Your task to perform on an android device: turn on sleep mode Image 0: 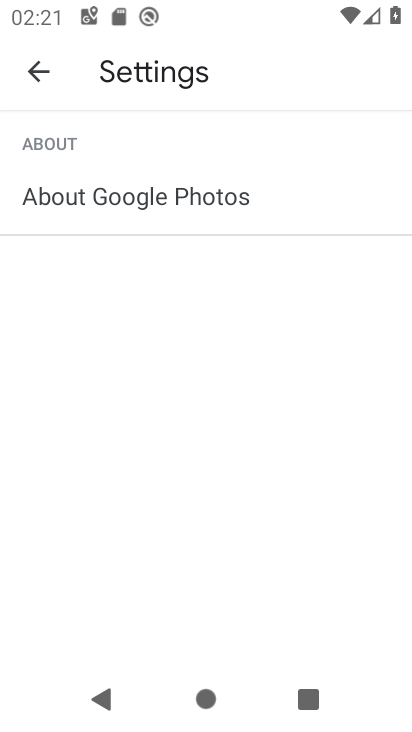
Step 0: press home button
Your task to perform on an android device: turn on sleep mode Image 1: 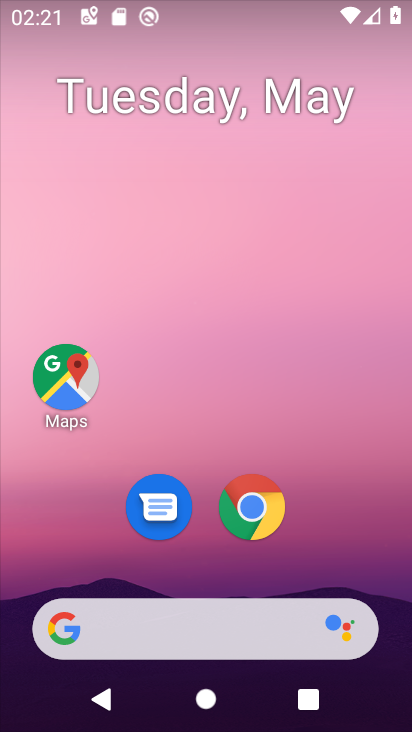
Step 1: drag from (197, 580) to (206, 239)
Your task to perform on an android device: turn on sleep mode Image 2: 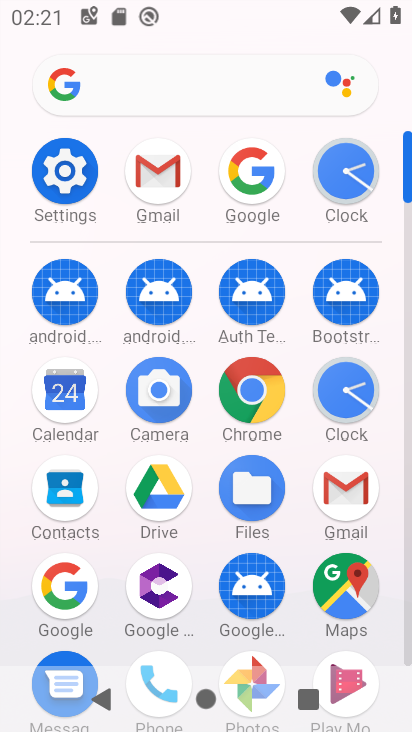
Step 2: click (52, 158)
Your task to perform on an android device: turn on sleep mode Image 3: 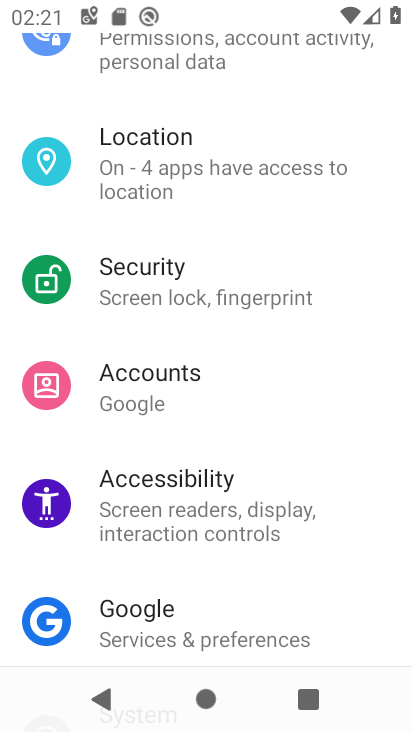
Step 3: drag from (221, 198) to (231, 534)
Your task to perform on an android device: turn on sleep mode Image 4: 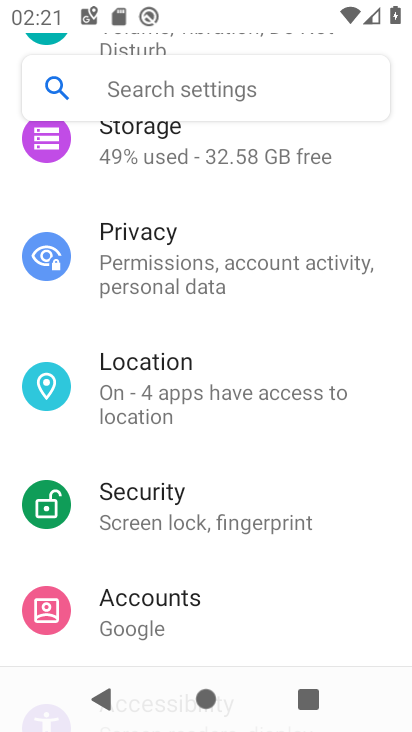
Step 4: drag from (222, 235) to (222, 450)
Your task to perform on an android device: turn on sleep mode Image 5: 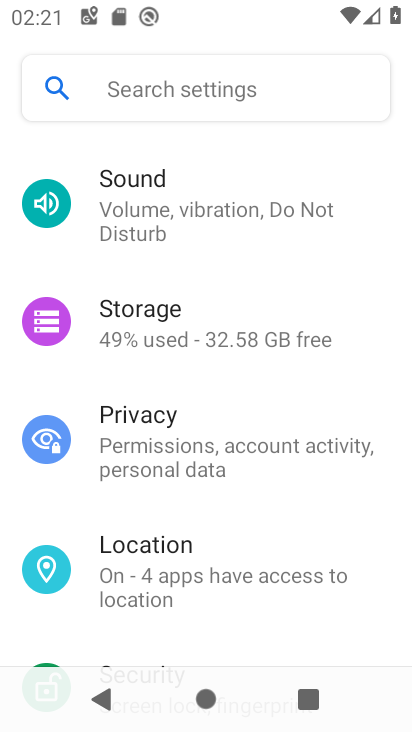
Step 5: drag from (207, 242) to (208, 472)
Your task to perform on an android device: turn on sleep mode Image 6: 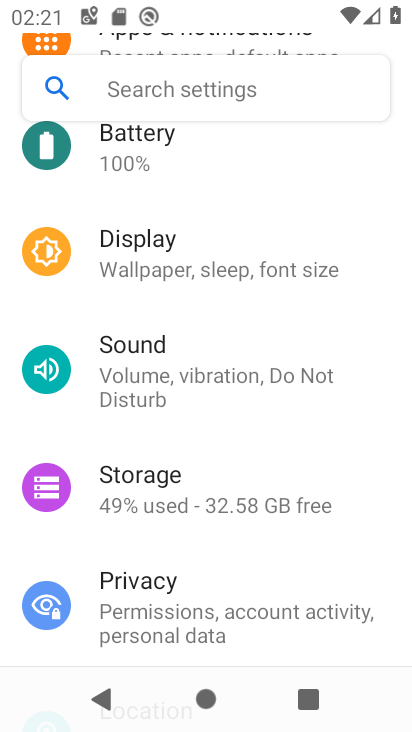
Step 6: click (158, 268)
Your task to perform on an android device: turn on sleep mode Image 7: 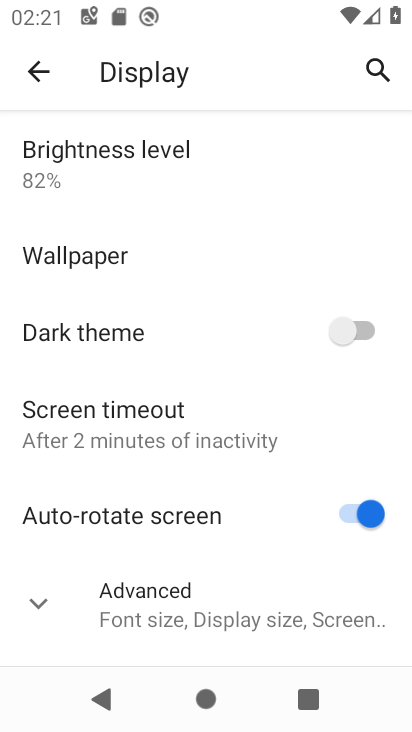
Step 7: drag from (196, 248) to (189, 479)
Your task to perform on an android device: turn on sleep mode Image 8: 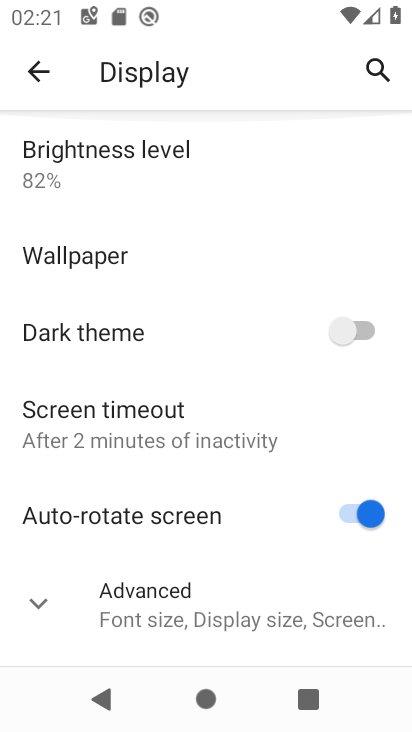
Step 8: click (178, 581)
Your task to perform on an android device: turn on sleep mode Image 9: 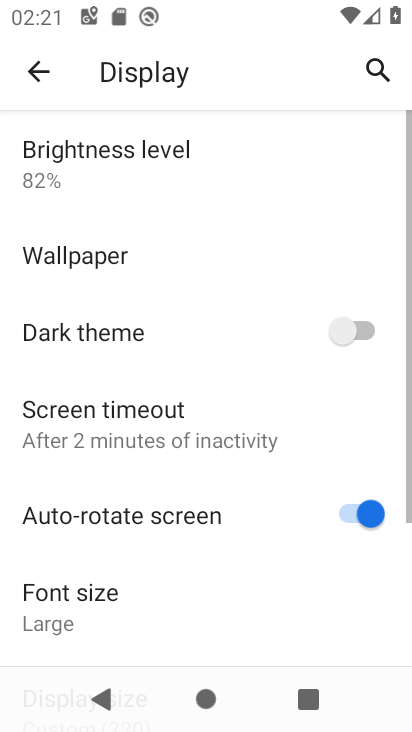
Step 9: drag from (175, 591) to (220, 379)
Your task to perform on an android device: turn on sleep mode Image 10: 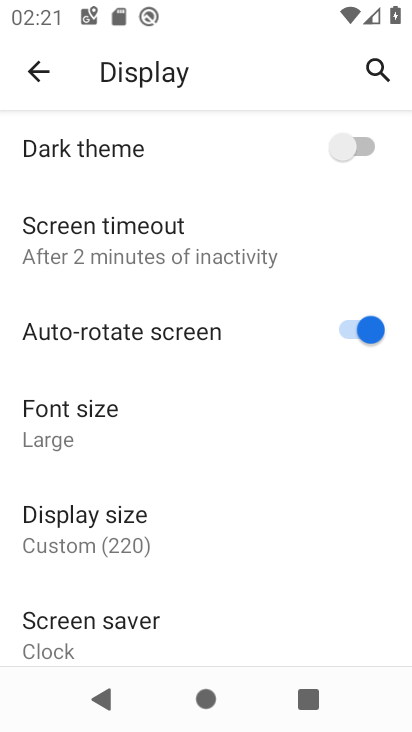
Step 10: click (161, 254)
Your task to perform on an android device: turn on sleep mode Image 11: 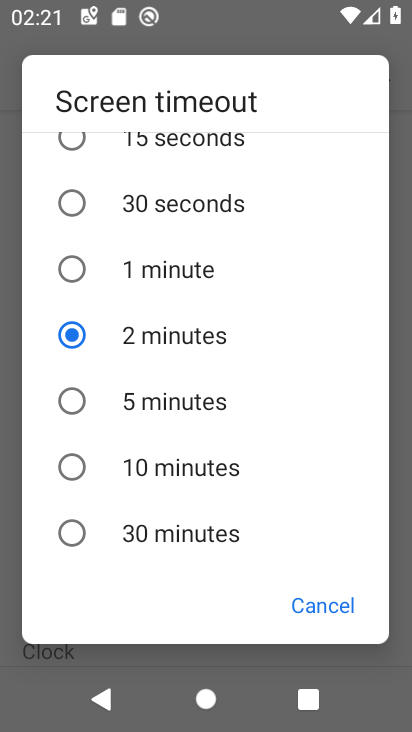
Step 11: click (170, 466)
Your task to perform on an android device: turn on sleep mode Image 12: 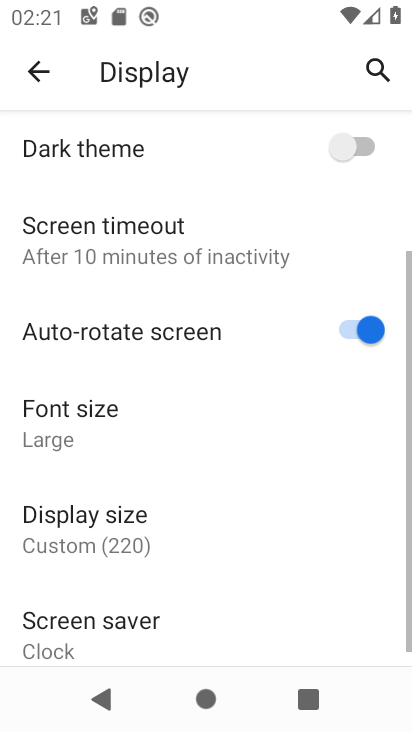
Step 12: task complete